Your task to perform on an android device: Go to Android settings Image 0: 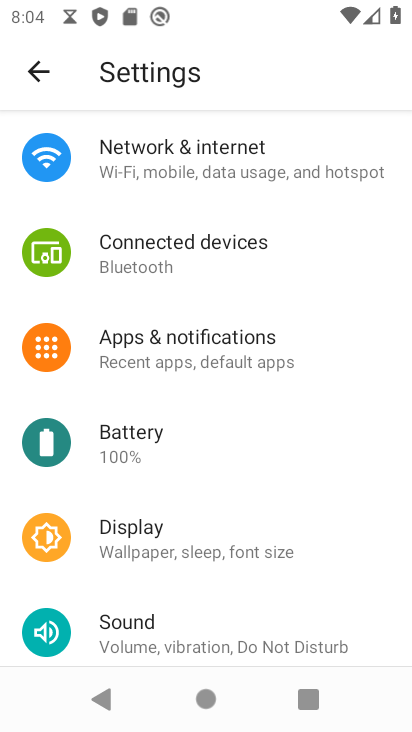
Step 0: drag from (174, 535) to (208, 262)
Your task to perform on an android device: Go to Android settings Image 1: 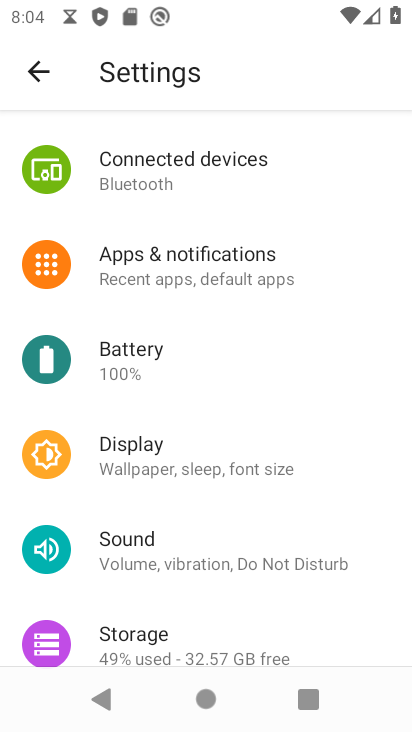
Step 1: task complete